Your task to perform on an android device: allow cookies in the chrome app Image 0: 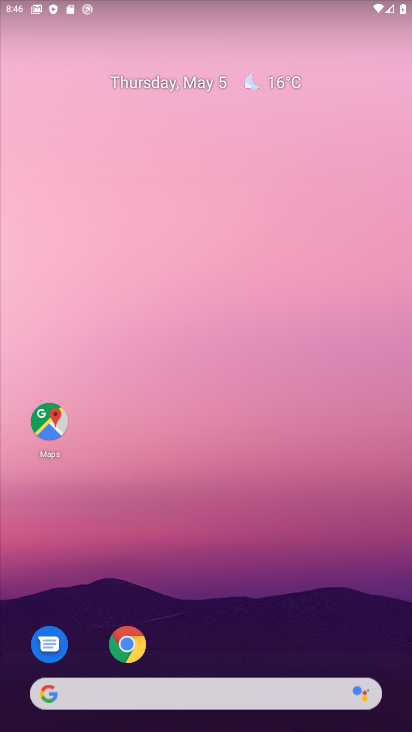
Step 0: click (119, 641)
Your task to perform on an android device: allow cookies in the chrome app Image 1: 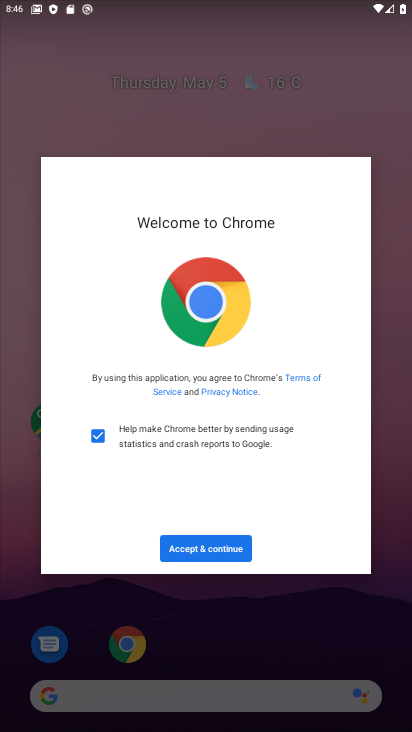
Step 1: click (209, 551)
Your task to perform on an android device: allow cookies in the chrome app Image 2: 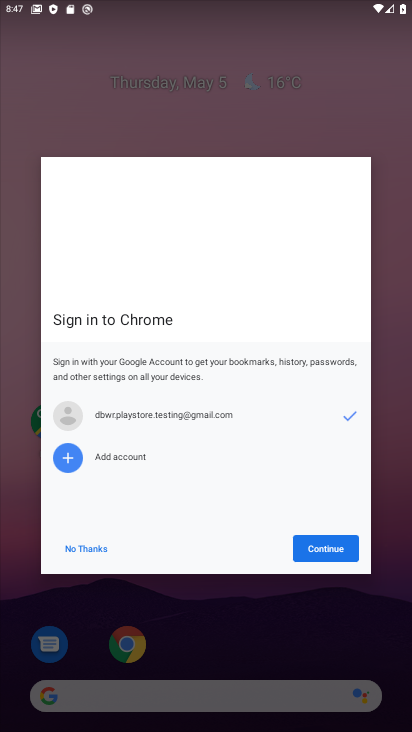
Step 2: click (326, 559)
Your task to perform on an android device: allow cookies in the chrome app Image 3: 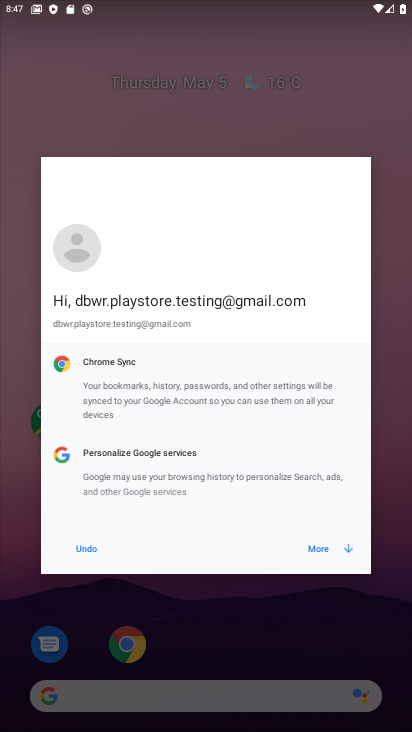
Step 3: click (330, 550)
Your task to perform on an android device: allow cookies in the chrome app Image 4: 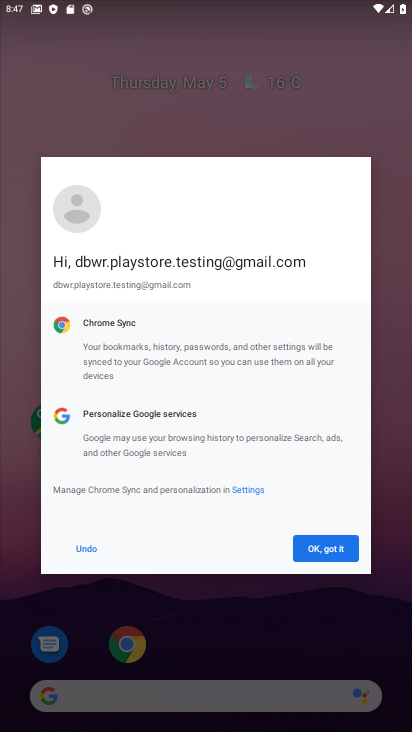
Step 4: click (330, 550)
Your task to perform on an android device: allow cookies in the chrome app Image 5: 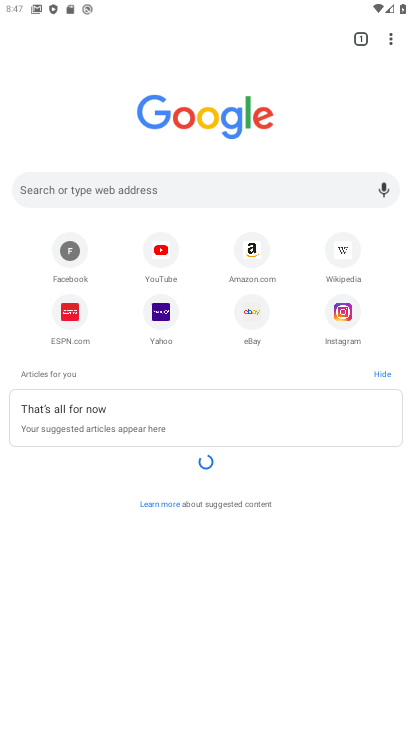
Step 5: click (393, 38)
Your task to perform on an android device: allow cookies in the chrome app Image 6: 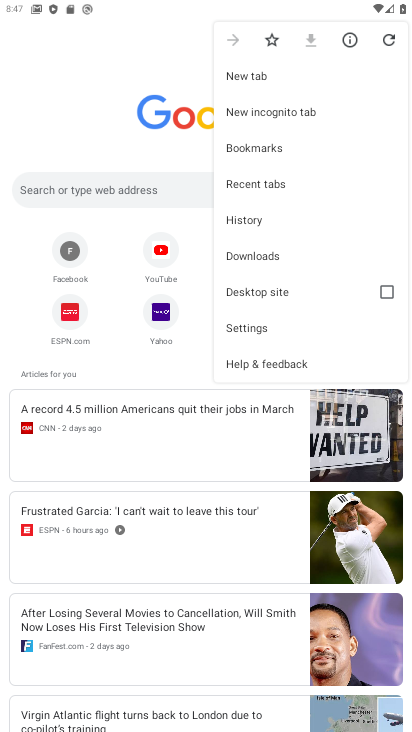
Step 6: click (257, 332)
Your task to perform on an android device: allow cookies in the chrome app Image 7: 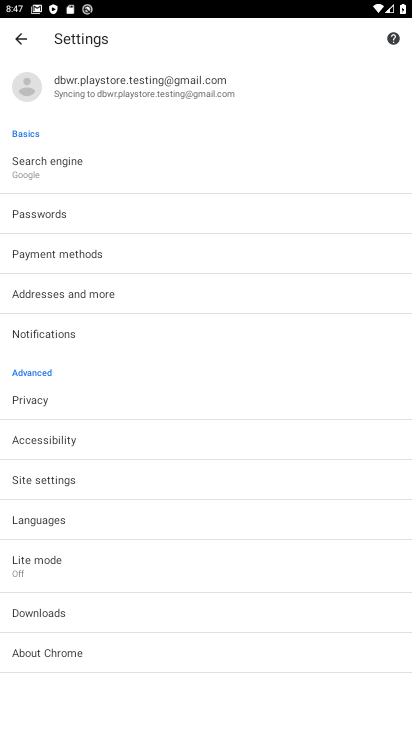
Step 7: click (57, 475)
Your task to perform on an android device: allow cookies in the chrome app Image 8: 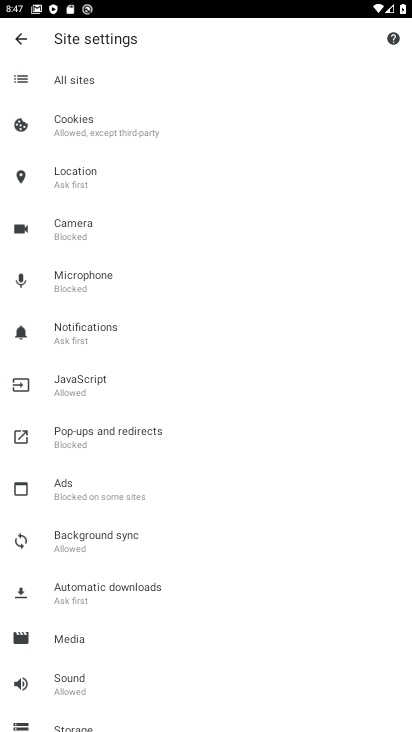
Step 8: click (94, 133)
Your task to perform on an android device: allow cookies in the chrome app Image 9: 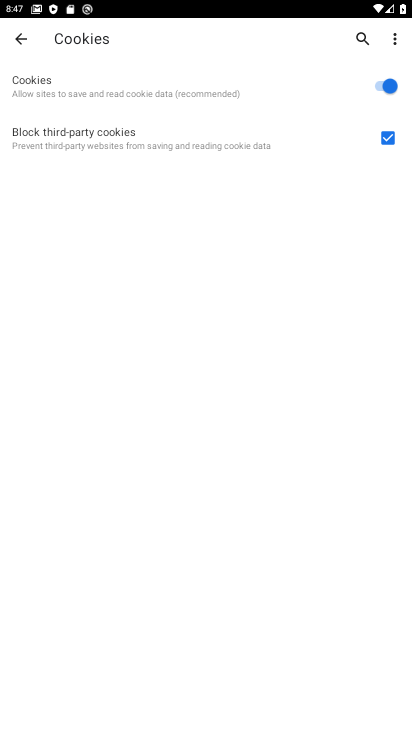
Step 9: task complete